Your task to perform on an android device: Open Chrome and go to settings Image 0: 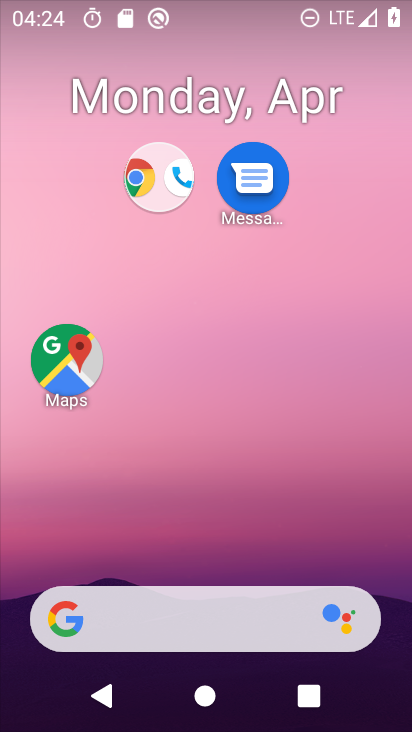
Step 0: drag from (279, 478) to (330, 10)
Your task to perform on an android device: Open Chrome and go to settings Image 1: 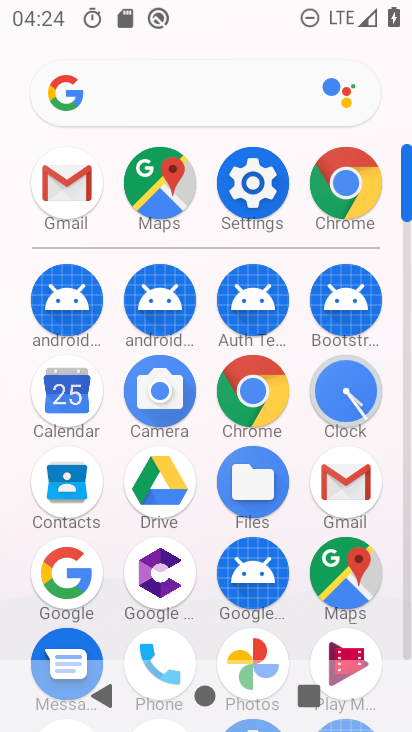
Step 1: click (243, 416)
Your task to perform on an android device: Open Chrome and go to settings Image 2: 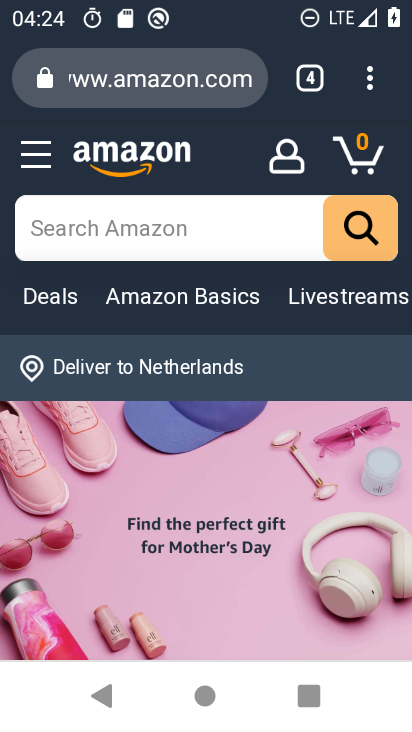
Step 2: task complete